Your task to perform on an android device: Go to CNN.com Image 0: 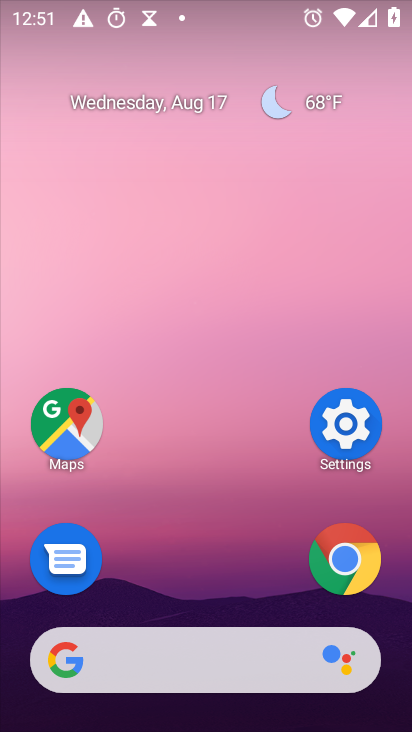
Step 0: click (335, 562)
Your task to perform on an android device: Go to CNN.com Image 1: 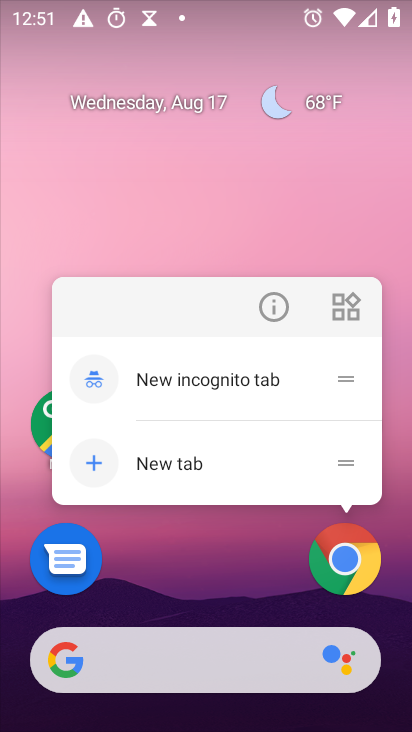
Step 1: click (348, 563)
Your task to perform on an android device: Go to CNN.com Image 2: 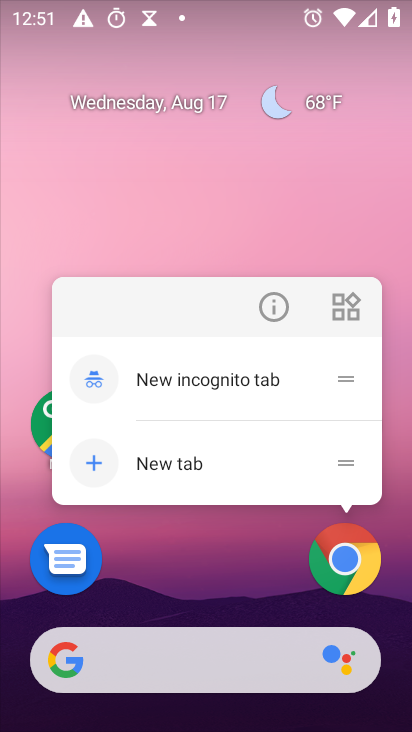
Step 2: click (348, 563)
Your task to perform on an android device: Go to CNN.com Image 3: 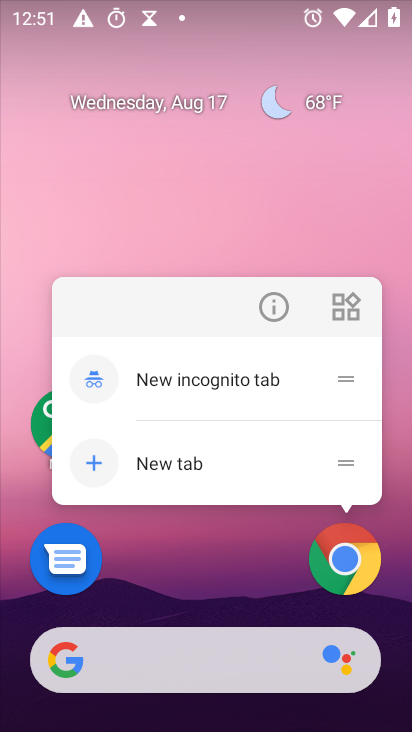
Step 3: click (348, 564)
Your task to perform on an android device: Go to CNN.com Image 4: 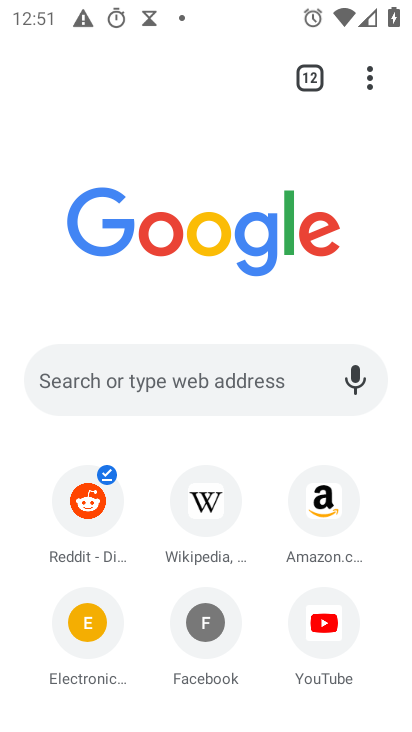
Step 4: click (128, 377)
Your task to perform on an android device: Go to CNN.com Image 5: 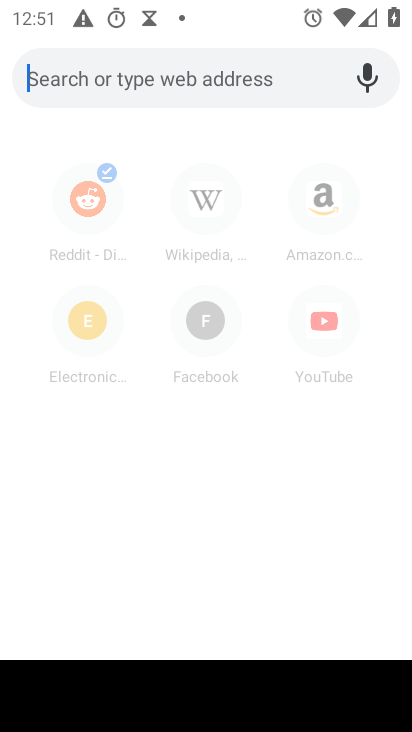
Step 5: type "cnn.com"
Your task to perform on an android device: Go to CNN.com Image 6: 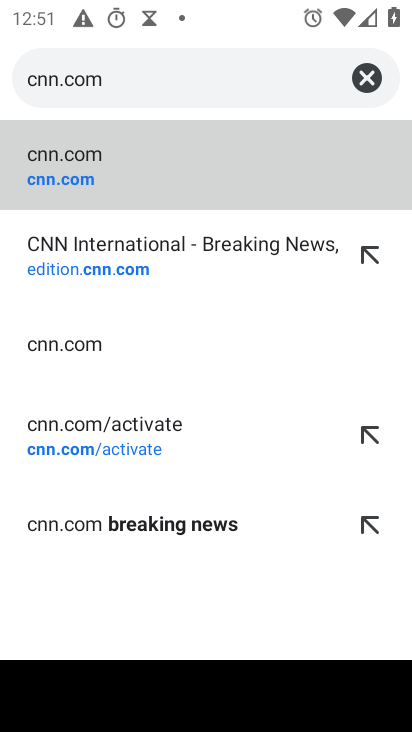
Step 6: click (86, 164)
Your task to perform on an android device: Go to CNN.com Image 7: 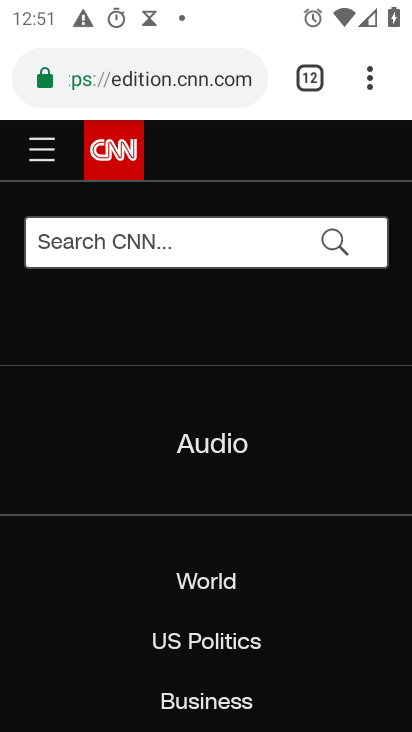
Step 7: task complete